Your task to perform on an android device: Open the web browser Image 0: 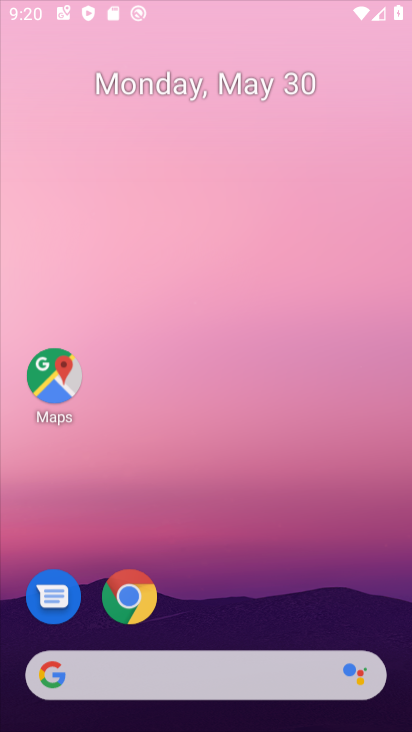
Step 0: press home button
Your task to perform on an android device: Open the web browser Image 1: 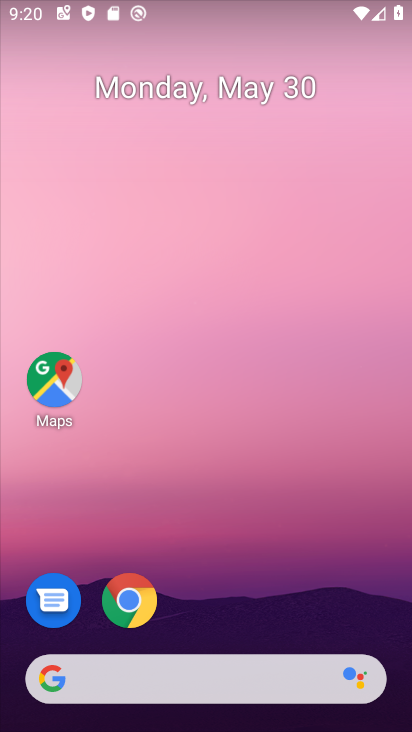
Step 1: click (53, 682)
Your task to perform on an android device: Open the web browser Image 2: 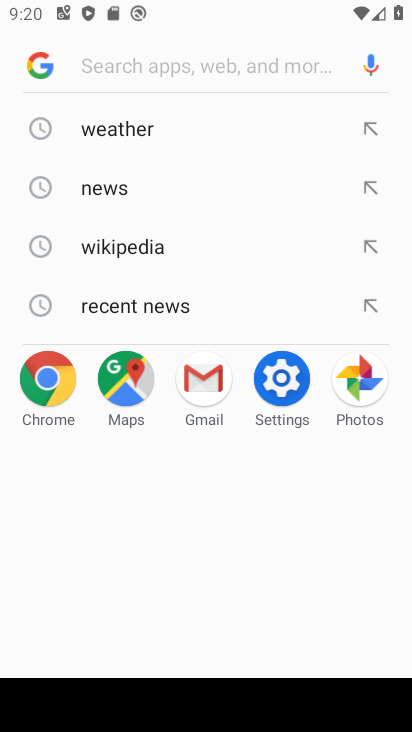
Step 2: task complete